Your task to perform on an android device: Search for sushi restaurants on Maps Image 0: 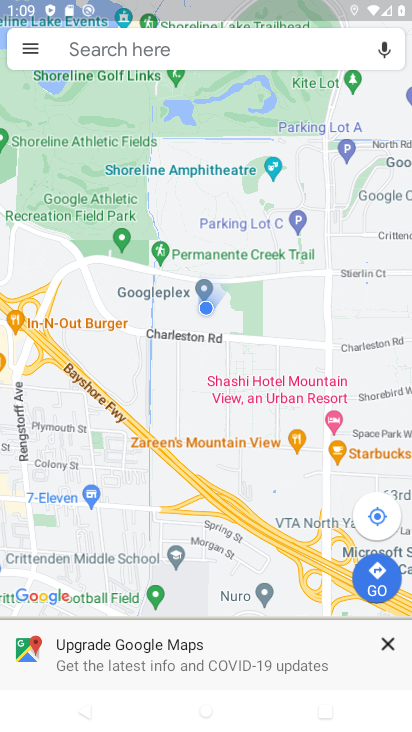
Step 0: press home button
Your task to perform on an android device: Search for sushi restaurants on Maps Image 1: 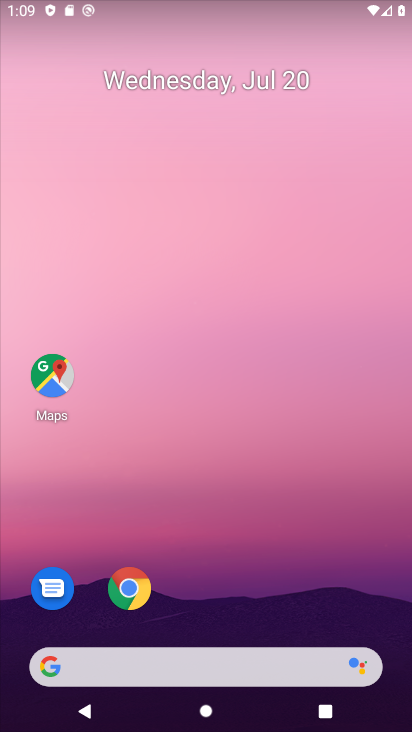
Step 1: drag from (368, 628) to (173, 84)
Your task to perform on an android device: Search for sushi restaurants on Maps Image 2: 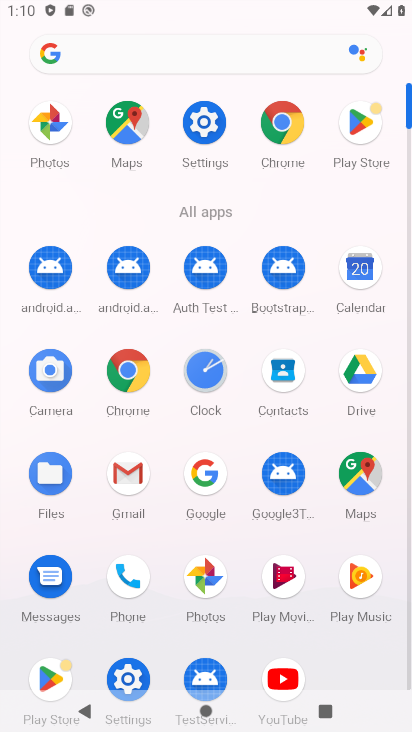
Step 2: click (347, 485)
Your task to perform on an android device: Search for sushi restaurants on Maps Image 3: 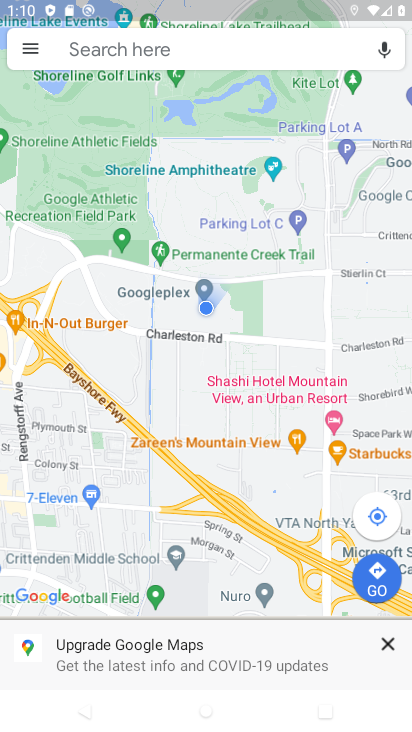
Step 3: click (118, 52)
Your task to perform on an android device: Search for sushi restaurants on Maps Image 4: 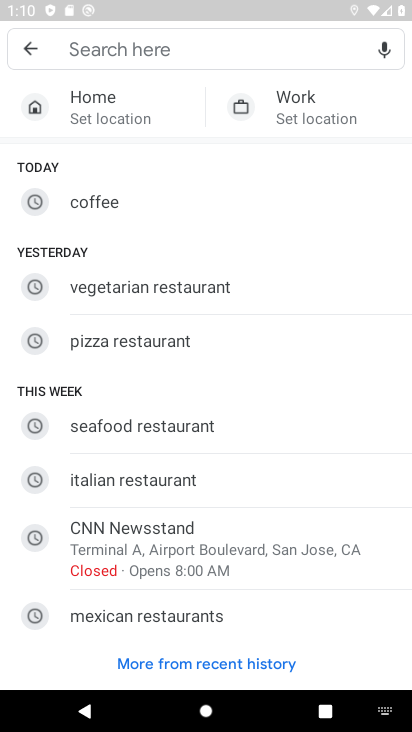
Step 4: type "sushi restaurants"
Your task to perform on an android device: Search for sushi restaurants on Maps Image 5: 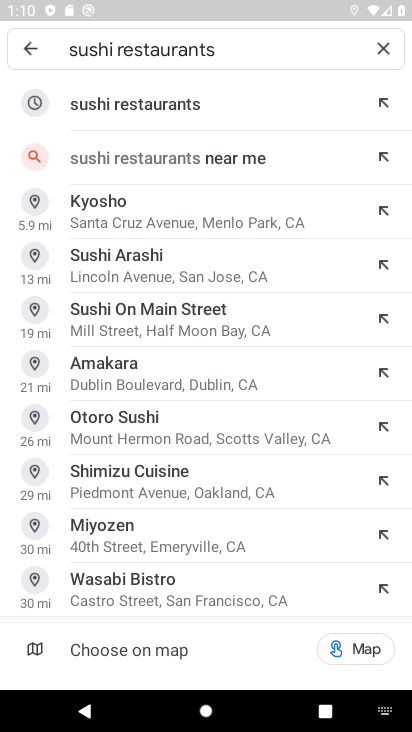
Step 5: click (103, 110)
Your task to perform on an android device: Search for sushi restaurants on Maps Image 6: 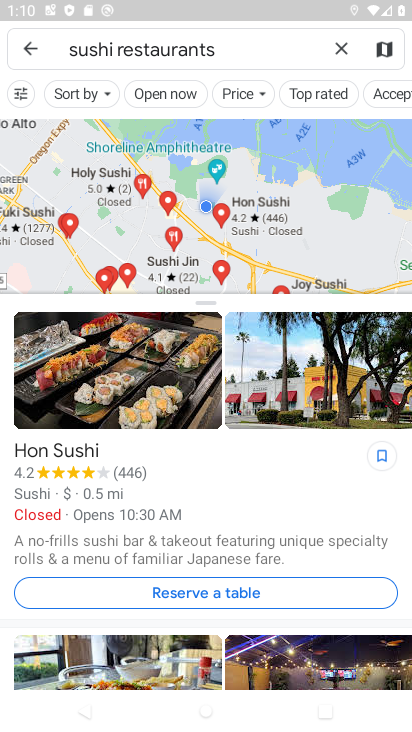
Step 6: task complete